Your task to perform on an android device: Show the shopping cart on walmart. Add apple airpods to the cart on walmart Image 0: 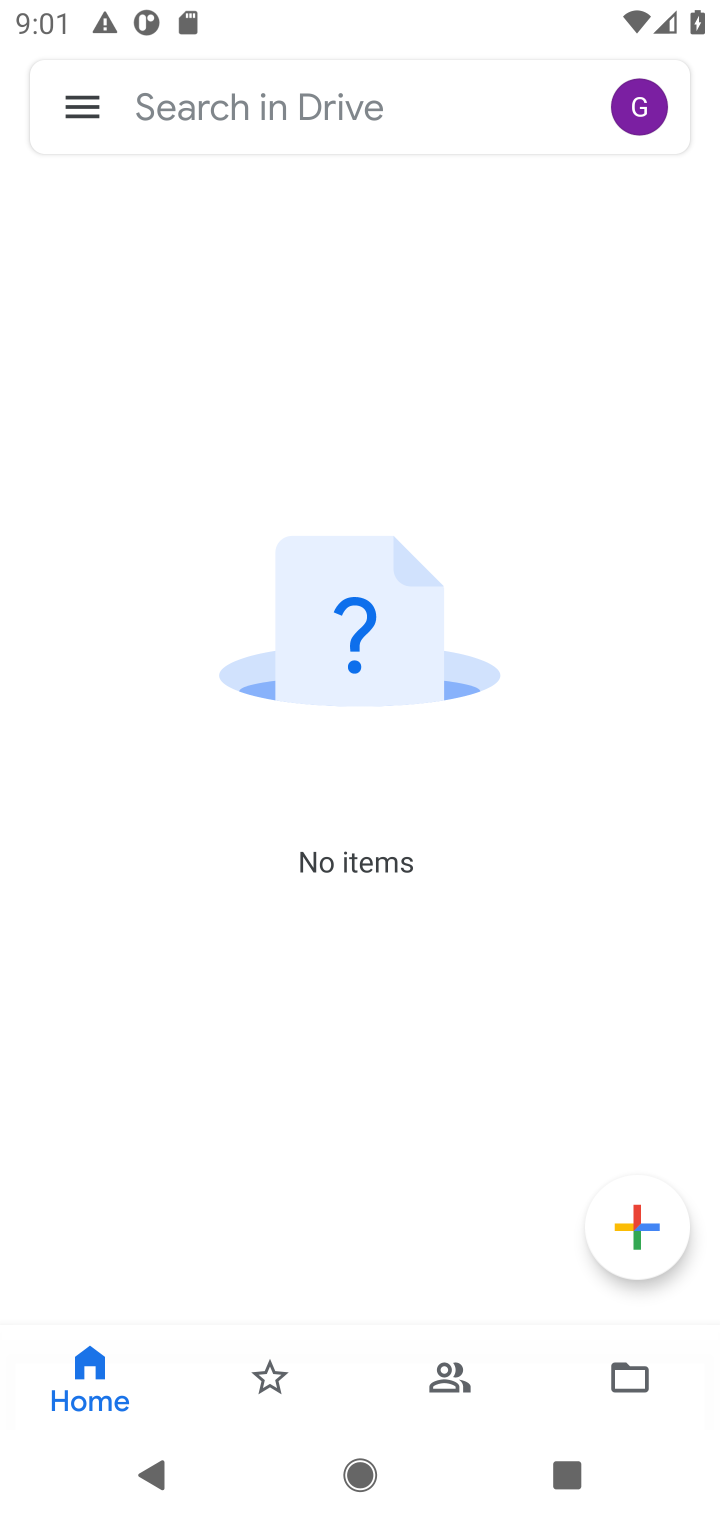
Step 0: press home button
Your task to perform on an android device: Show the shopping cart on walmart. Add apple airpods to the cart on walmart Image 1: 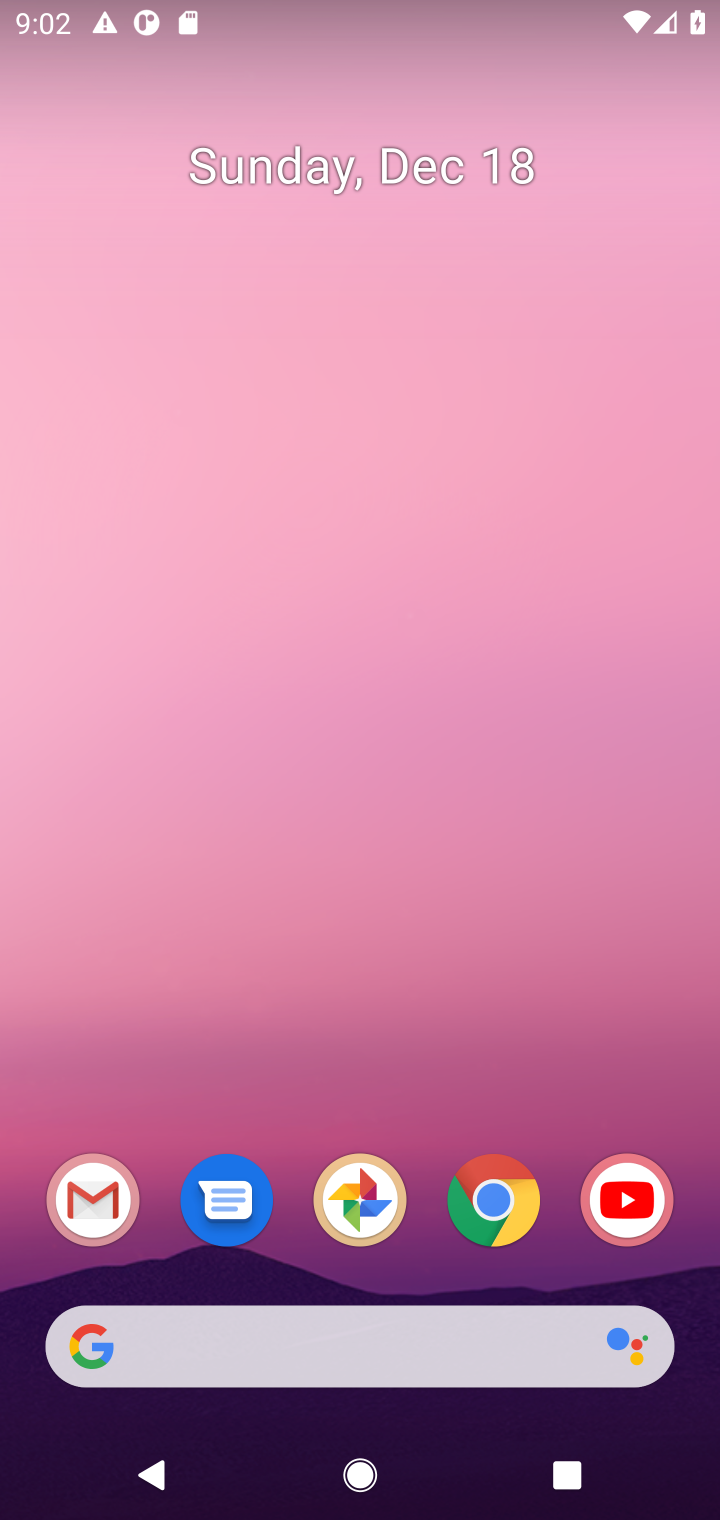
Step 1: click (499, 1210)
Your task to perform on an android device: Show the shopping cart on walmart. Add apple airpods to the cart on walmart Image 2: 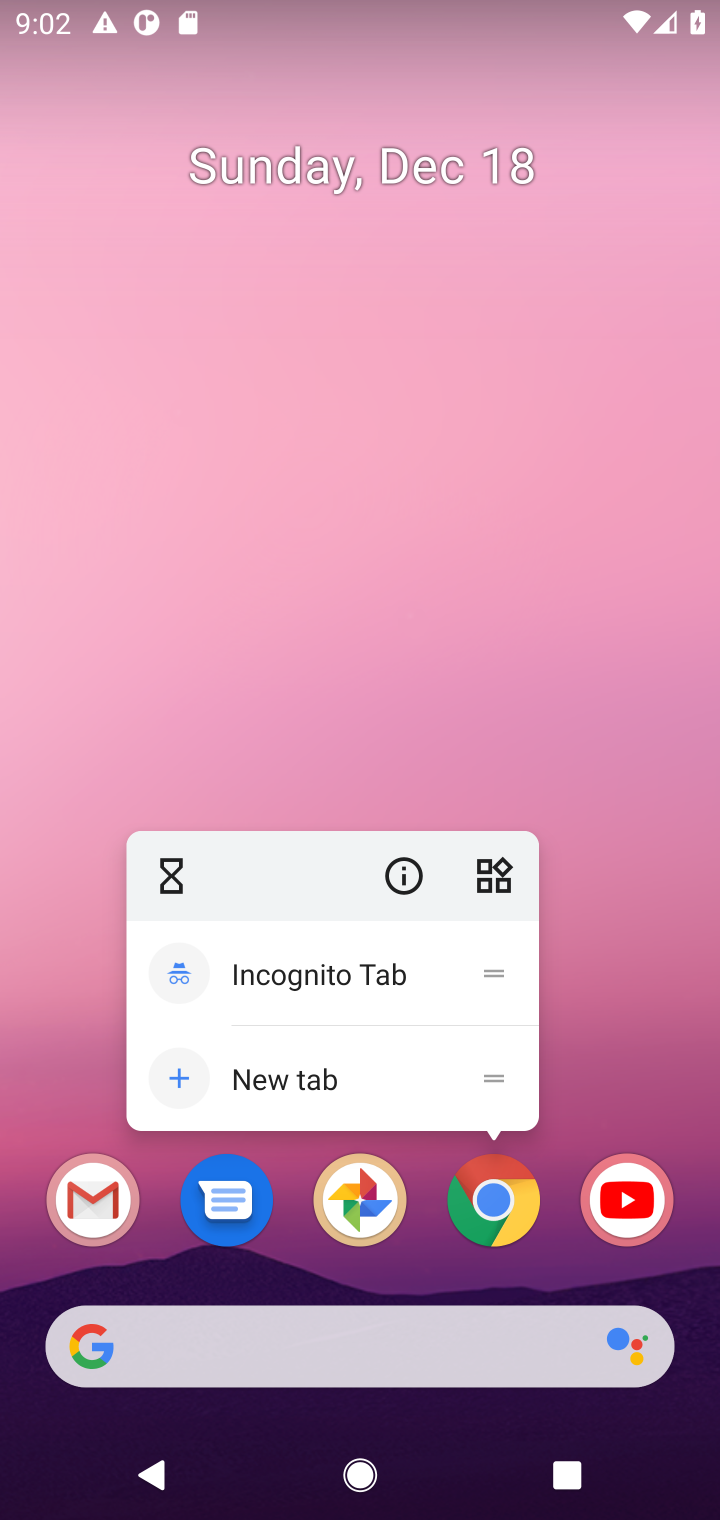
Step 2: click (499, 1210)
Your task to perform on an android device: Show the shopping cart on walmart. Add apple airpods to the cart on walmart Image 3: 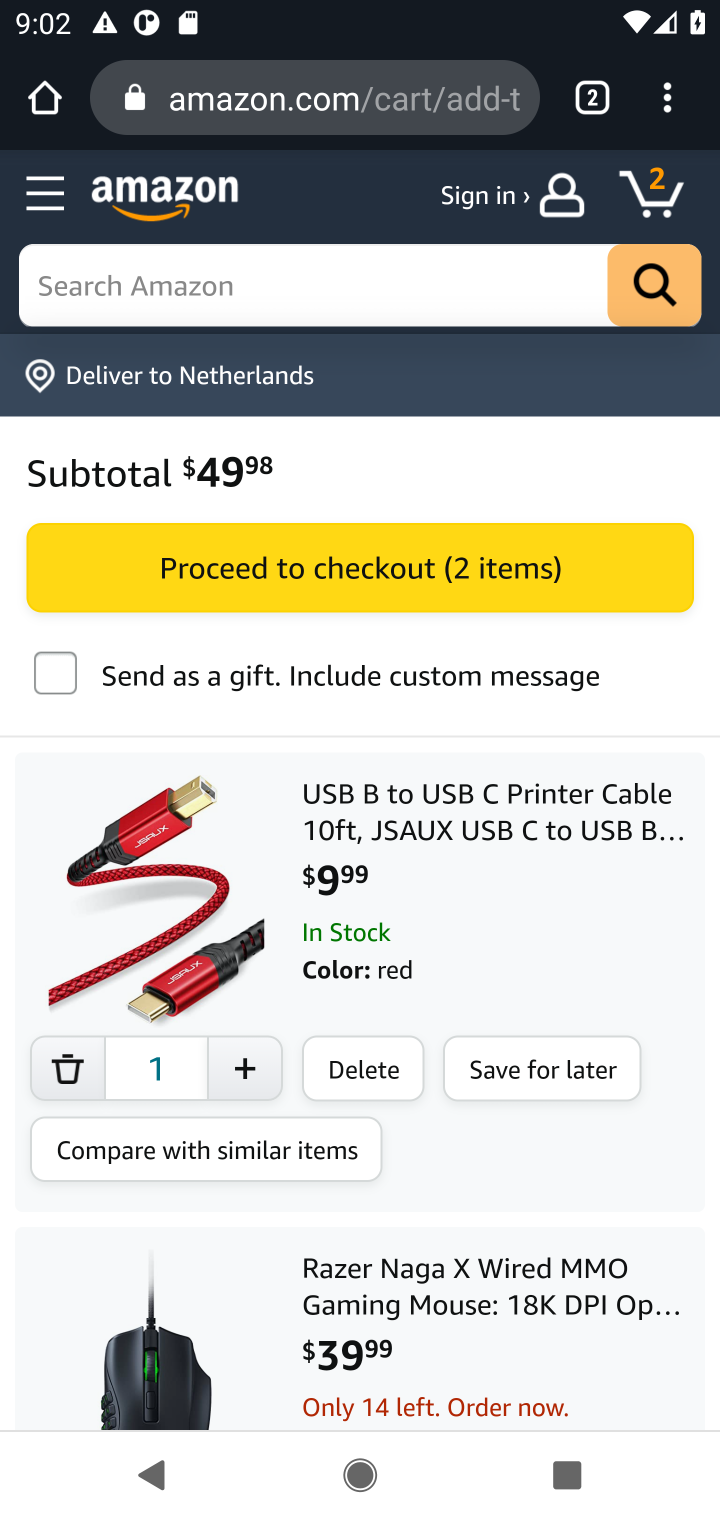
Step 3: click (233, 107)
Your task to perform on an android device: Show the shopping cart on walmart. Add apple airpods to the cart on walmart Image 4: 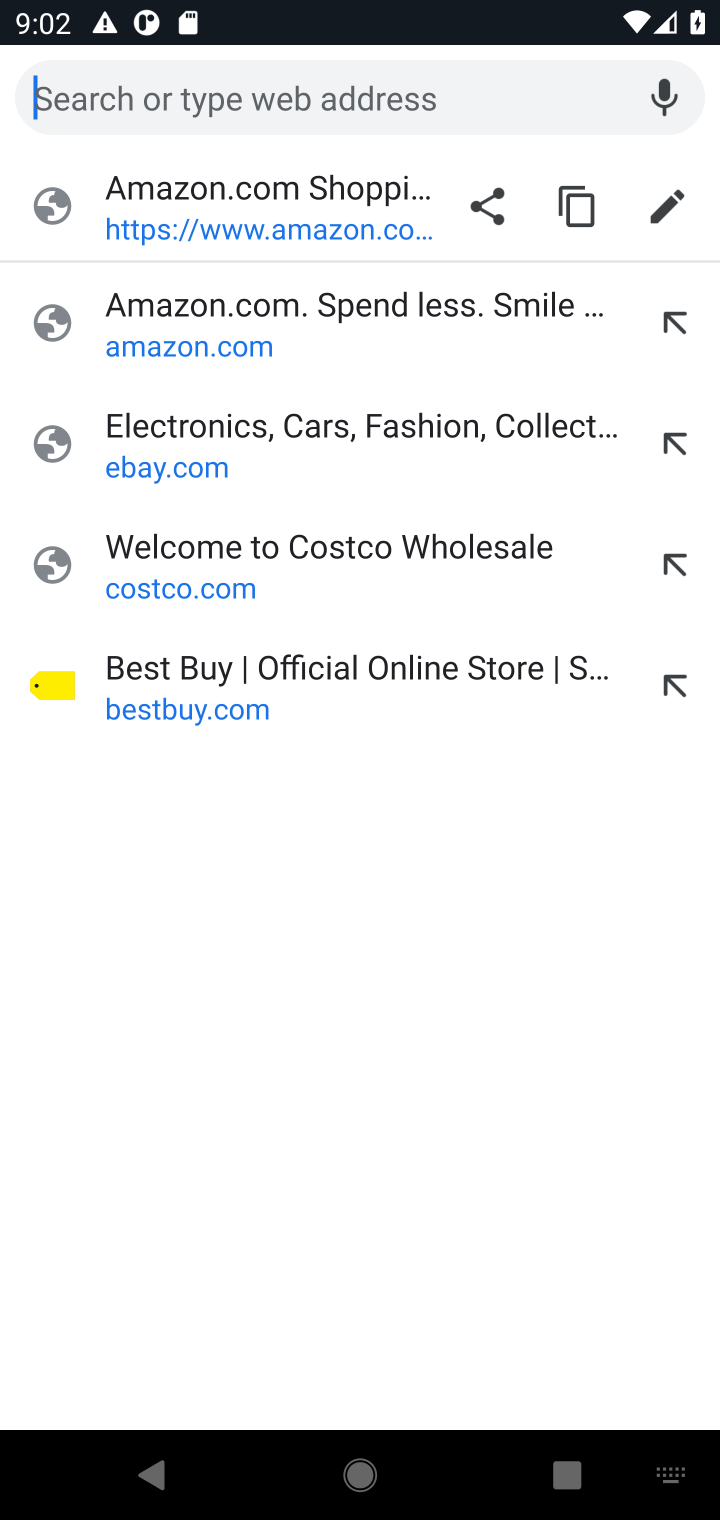
Step 4: type "walmart.com"
Your task to perform on an android device: Show the shopping cart on walmart. Add apple airpods to the cart on walmart Image 5: 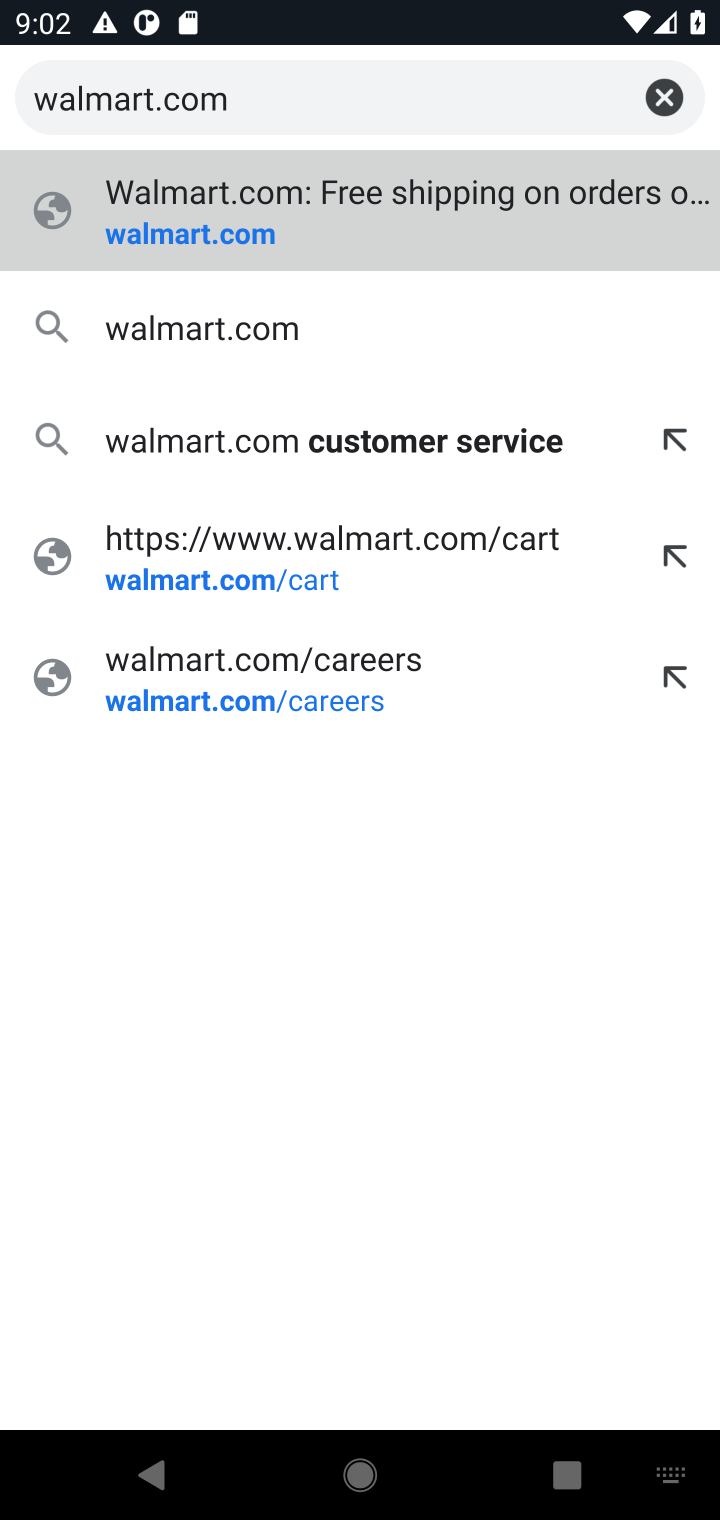
Step 5: click (187, 249)
Your task to perform on an android device: Show the shopping cart on walmart. Add apple airpods to the cart on walmart Image 6: 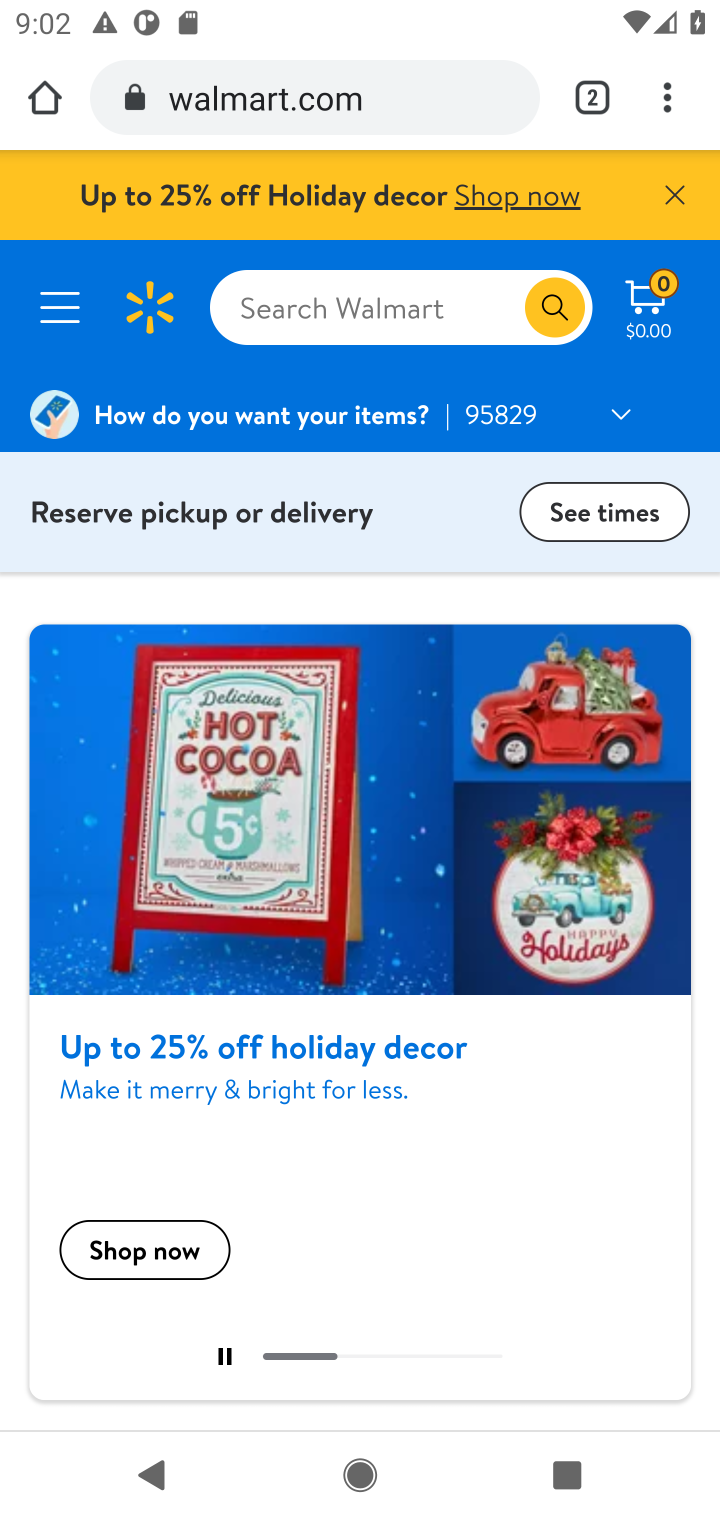
Step 6: click (656, 315)
Your task to perform on an android device: Show the shopping cart on walmart. Add apple airpods to the cart on walmart Image 7: 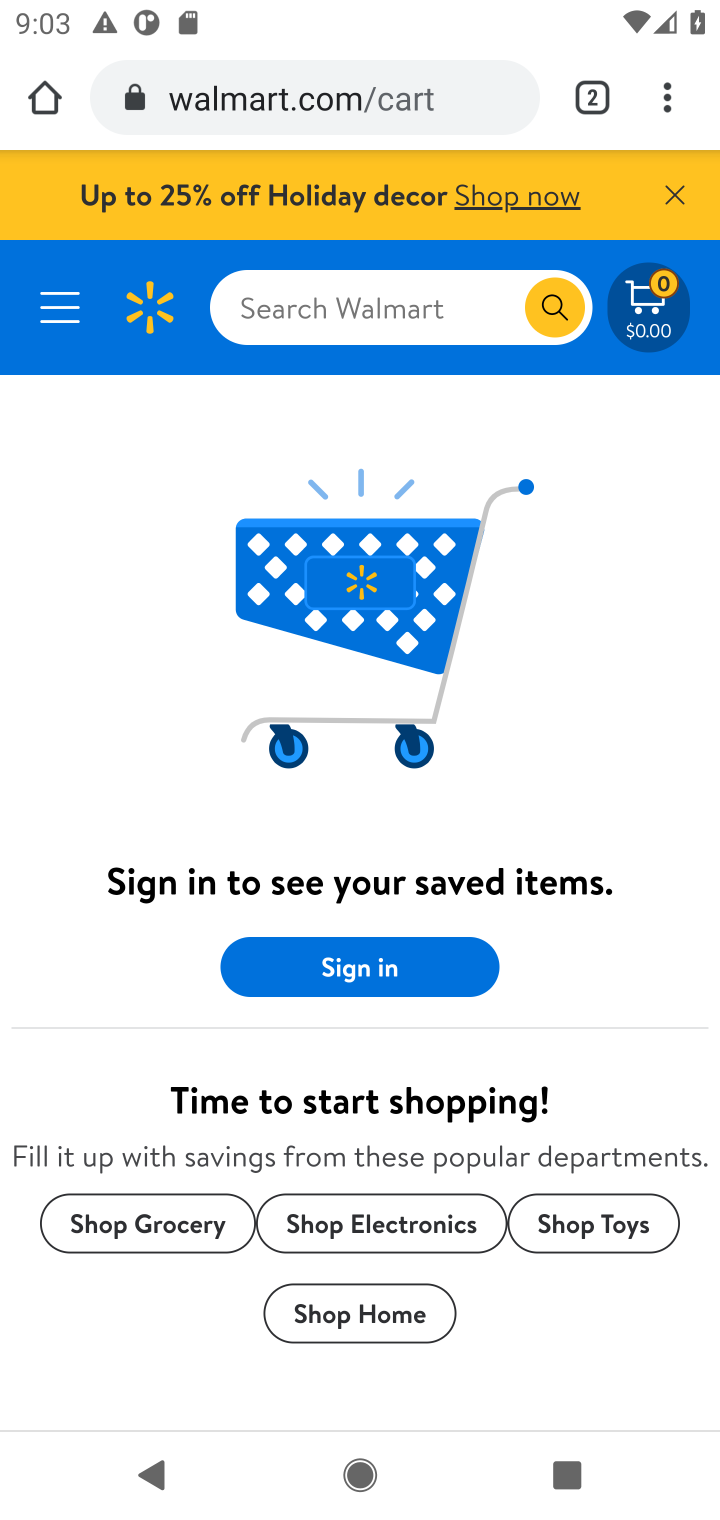
Step 7: click (297, 305)
Your task to perform on an android device: Show the shopping cart on walmart. Add apple airpods to the cart on walmart Image 8: 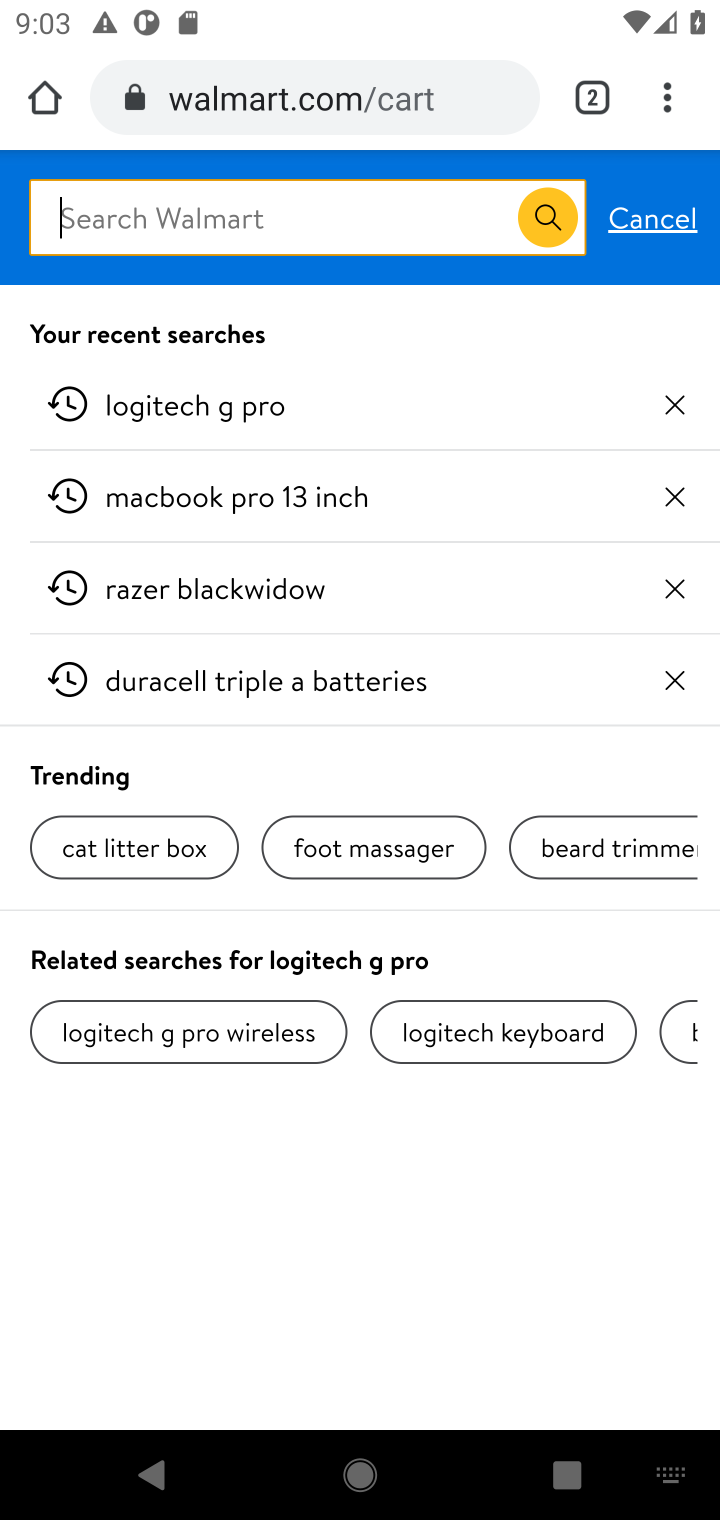
Step 8: type "apple airpods"
Your task to perform on an android device: Show the shopping cart on walmart. Add apple airpods to the cart on walmart Image 9: 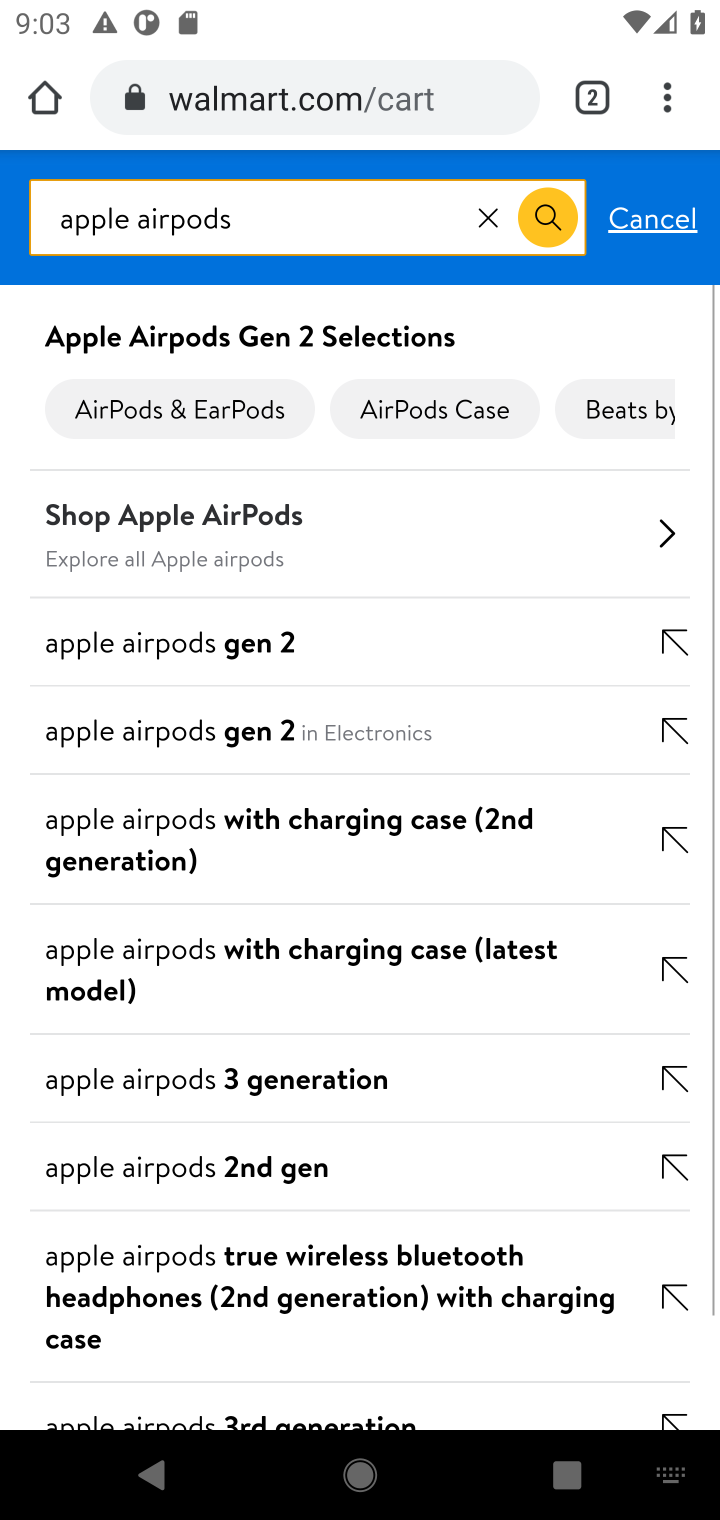
Step 9: click (537, 216)
Your task to perform on an android device: Show the shopping cart on walmart. Add apple airpods to the cart on walmart Image 10: 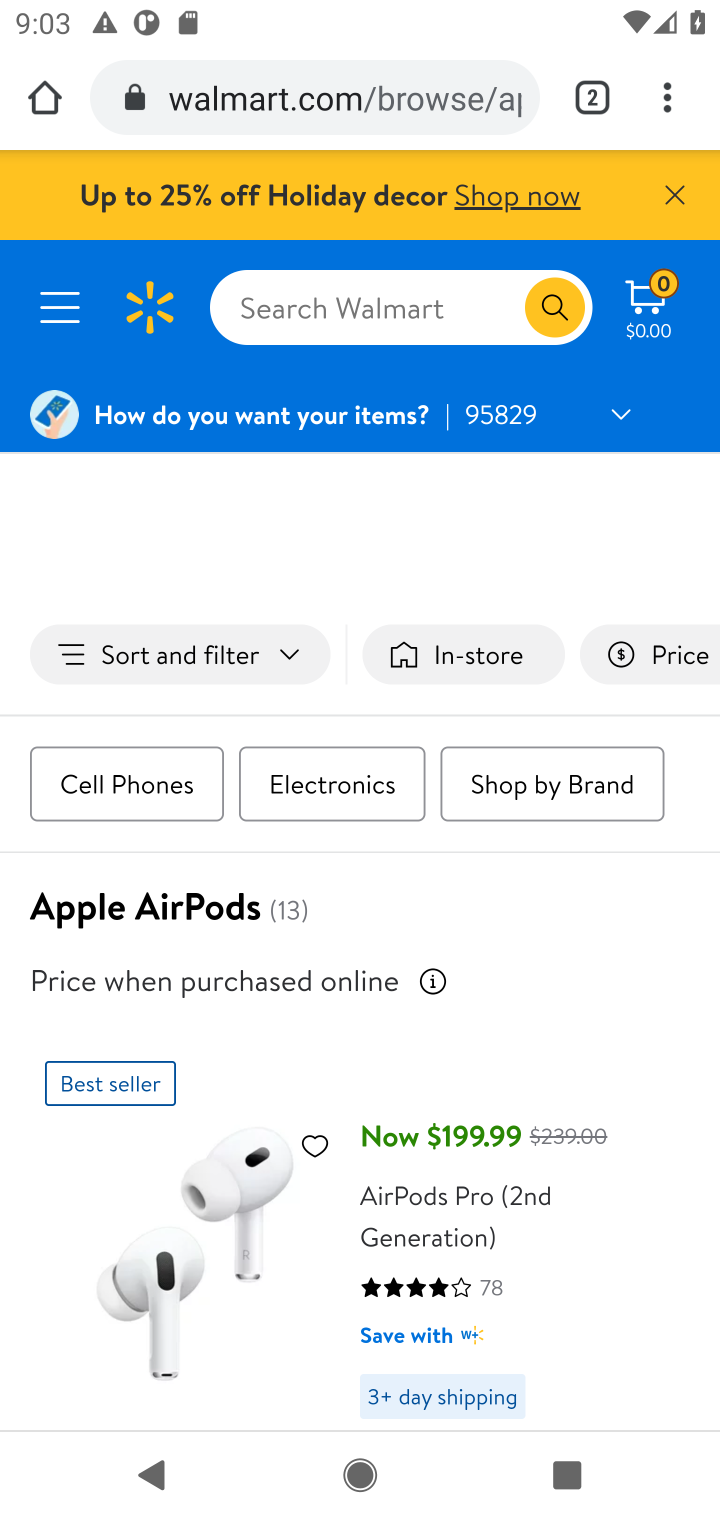
Step 10: drag from (376, 1134) to (332, 589)
Your task to perform on an android device: Show the shopping cart on walmart. Add apple airpods to the cart on walmart Image 11: 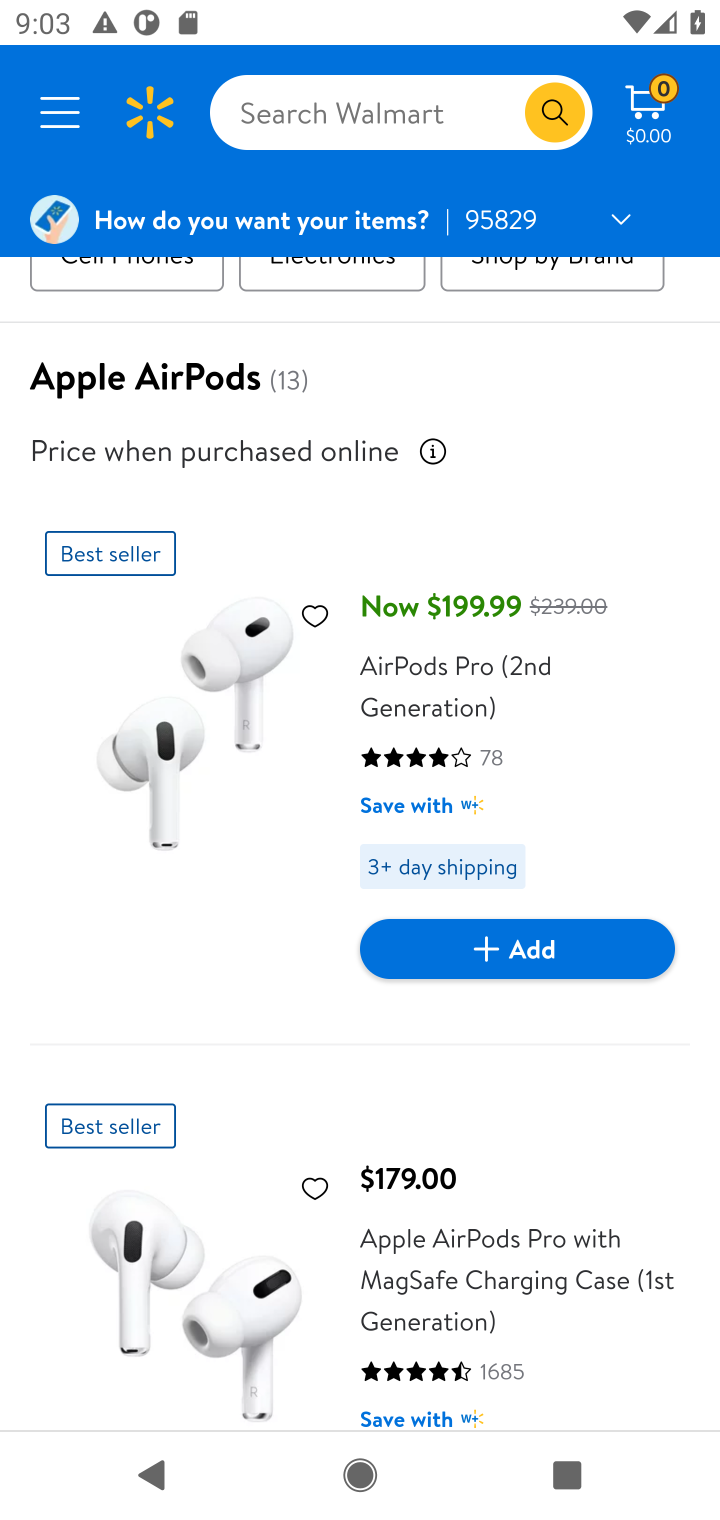
Step 11: click (501, 939)
Your task to perform on an android device: Show the shopping cart on walmart. Add apple airpods to the cart on walmart Image 12: 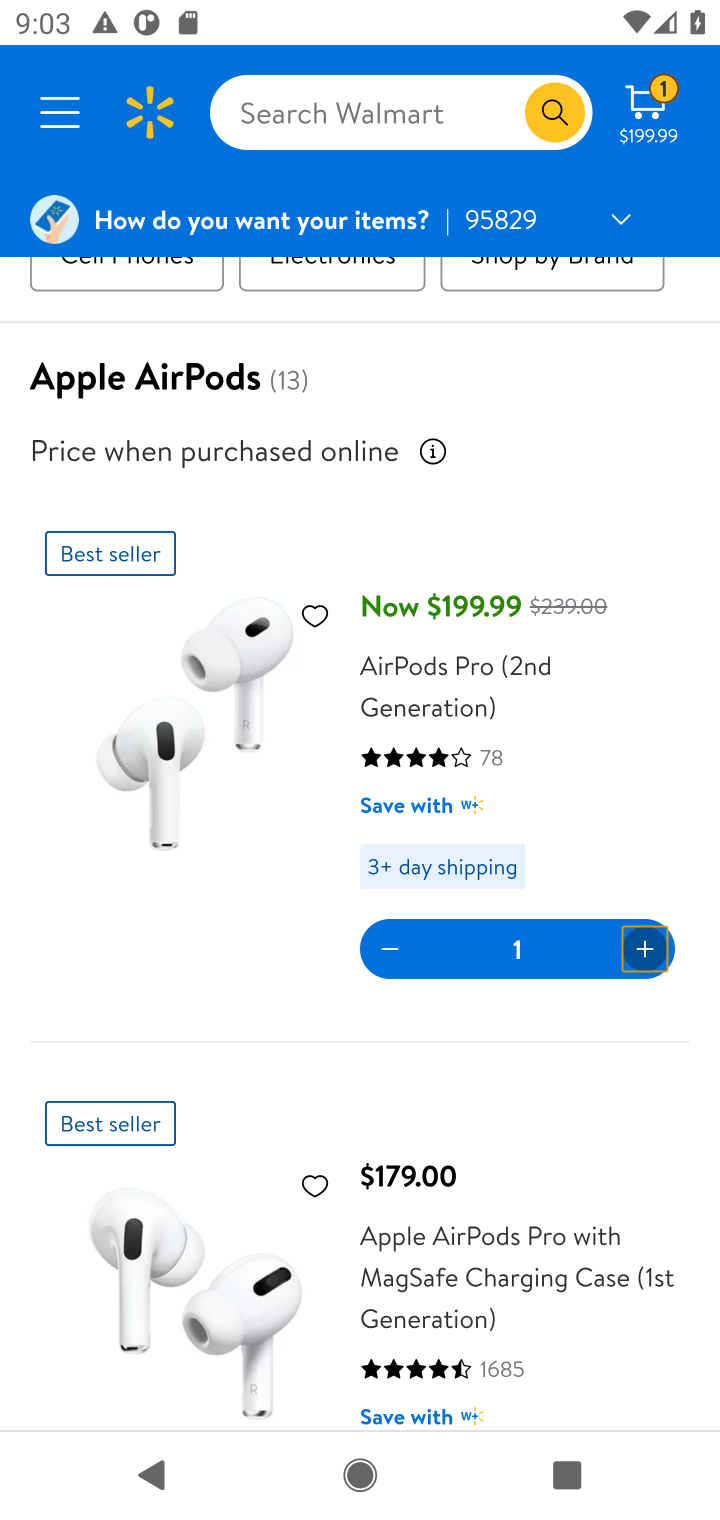
Step 12: task complete